Your task to perform on an android device: open wifi settings Image 0: 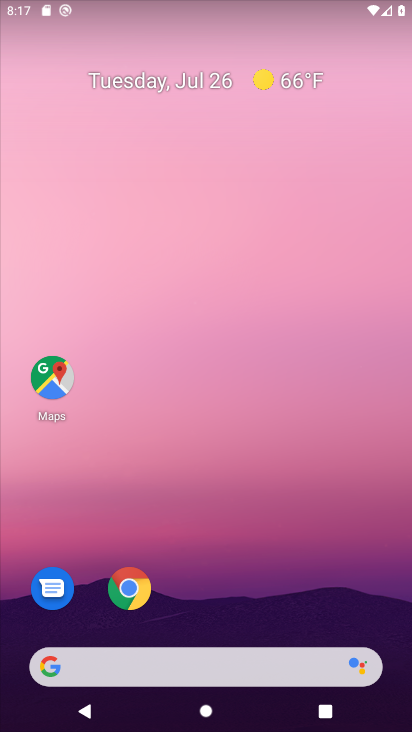
Step 0: drag from (228, 714) to (232, 140)
Your task to perform on an android device: open wifi settings Image 1: 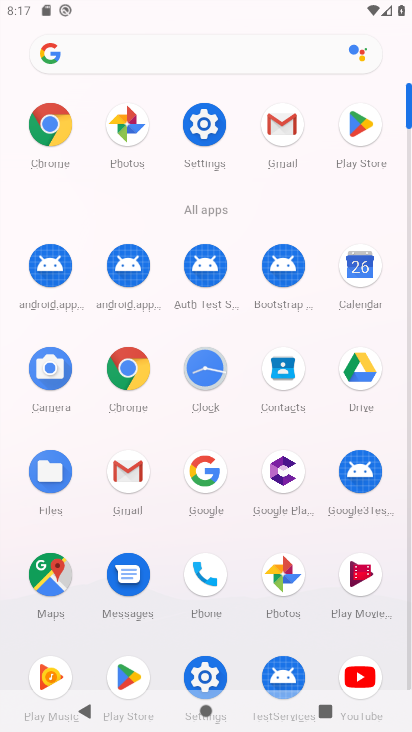
Step 1: click (201, 124)
Your task to perform on an android device: open wifi settings Image 2: 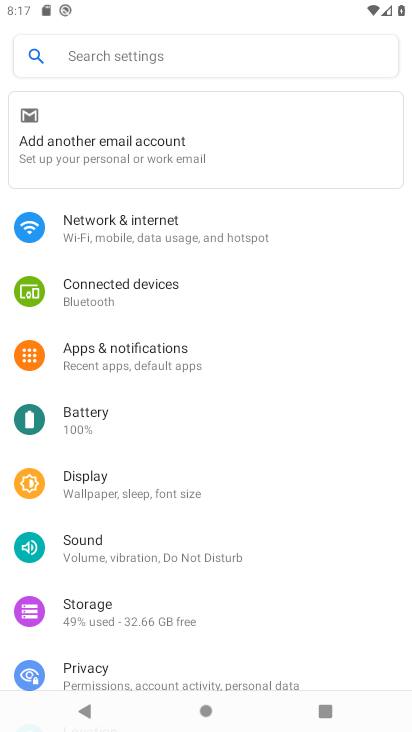
Step 2: click (130, 223)
Your task to perform on an android device: open wifi settings Image 3: 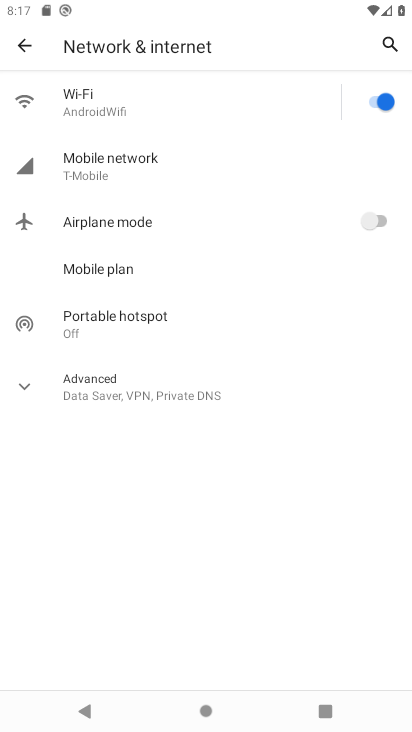
Step 3: click (85, 112)
Your task to perform on an android device: open wifi settings Image 4: 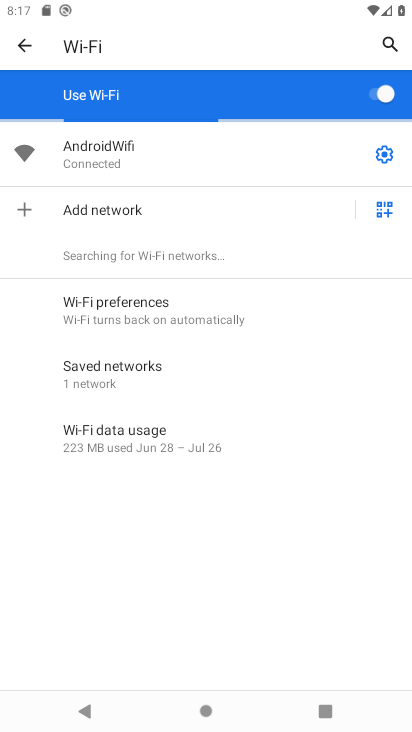
Step 4: task complete